Your task to perform on an android device: Open Google Chrome and click the shortcut for Amazon.com Image 0: 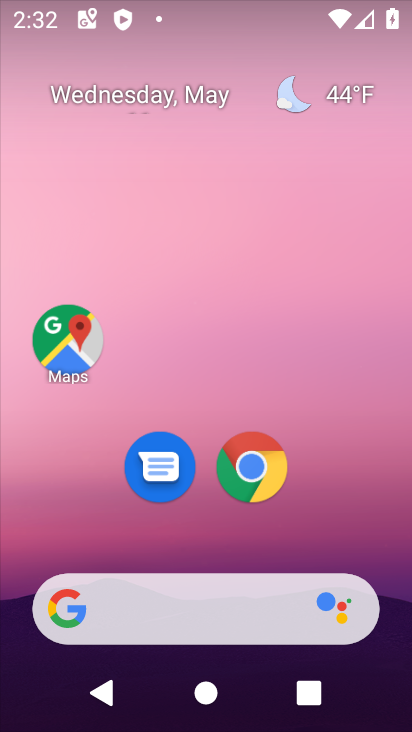
Step 0: drag from (356, 688) to (179, 135)
Your task to perform on an android device: Open Google Chrome and click the shortcut for Amazon.com Image 1: 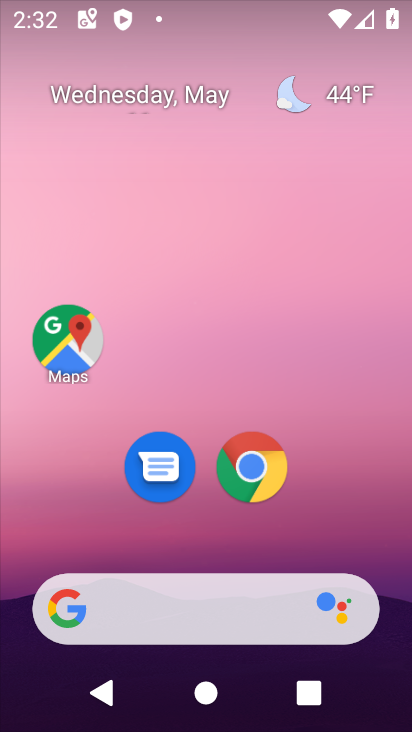
Step 1: drag from (318, 535) to (79, 45)
Your task to perform on an android device: Open Google Chrome and click the shortcut for Amazon.com Image 2: 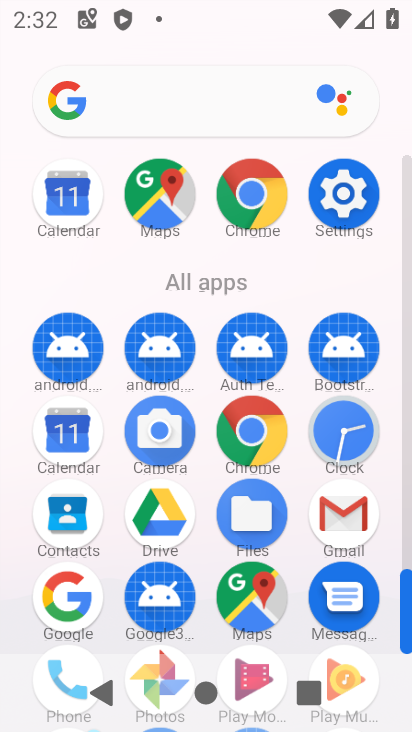
Step 2: click (263, 192)
Your task to perform on an android device: Open Google Chrome and click the shortcut for Amazon.com Image 3: 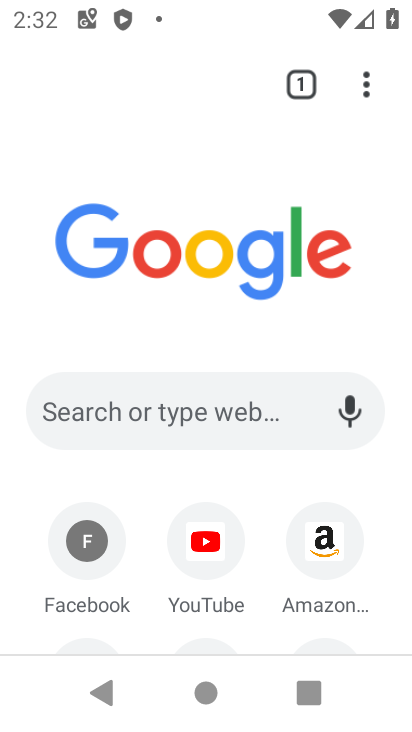
Step 3: click (310, 548)
Your task to perform on an android device: Open Google Chrome and click the shortcut for Amazon.com Image 4: 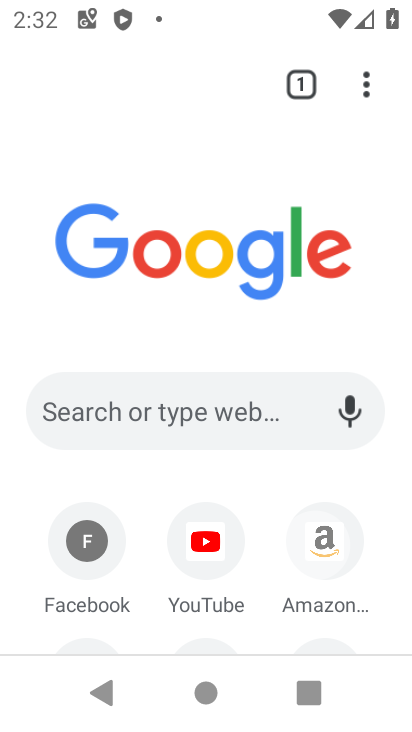
Step 4: click (317, 543)
Your task to perform on an android device: Open Google Chrome and click the shortcut for Amazon.com Image 5: 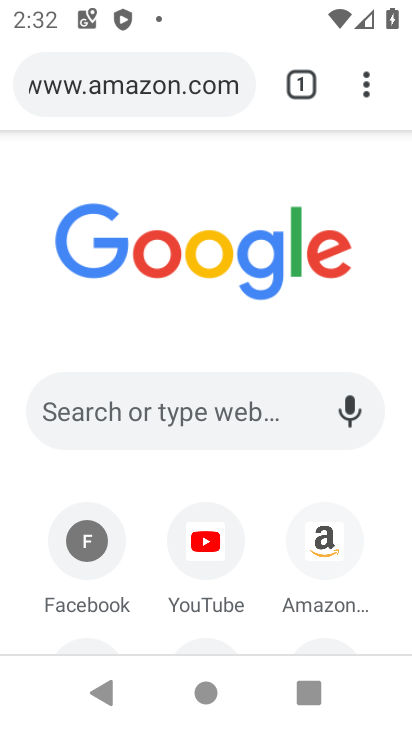
Step 5: click (317, 541)
Your task to perform on an android device: Open Google Chrome and click the shortcut for Amazon.com Image 6: 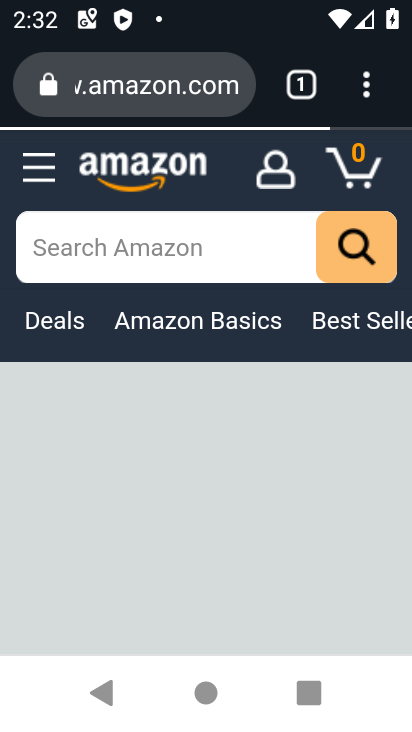
Step 6: task complete